Your task to perform on an android device: Set the phone to "Do not disturb". Image 0: 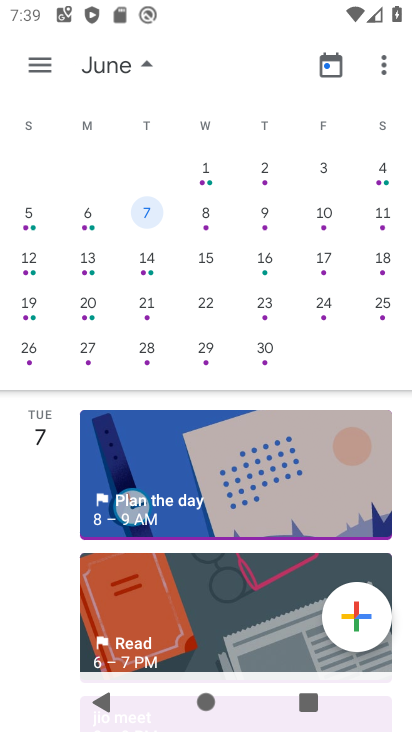
Step 0: press home button
Your task to perform on an android device: Set the phone to "Do not disturb". Image 1: 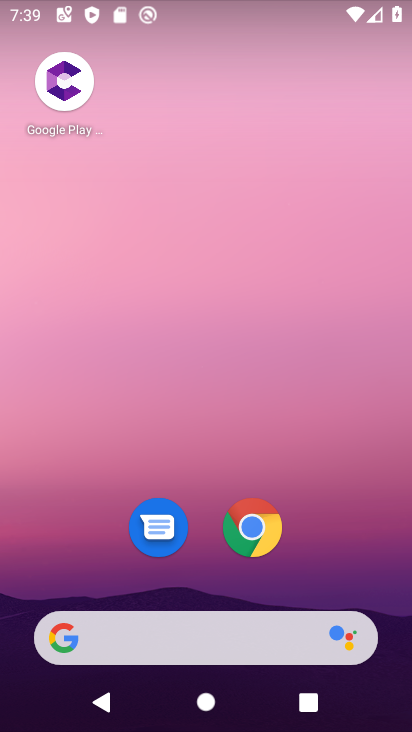
Step 1: drag from (215, 3) to (128, 461)
Your task to perform on an android device: Set the phone to "Do not disturb". Image 2: 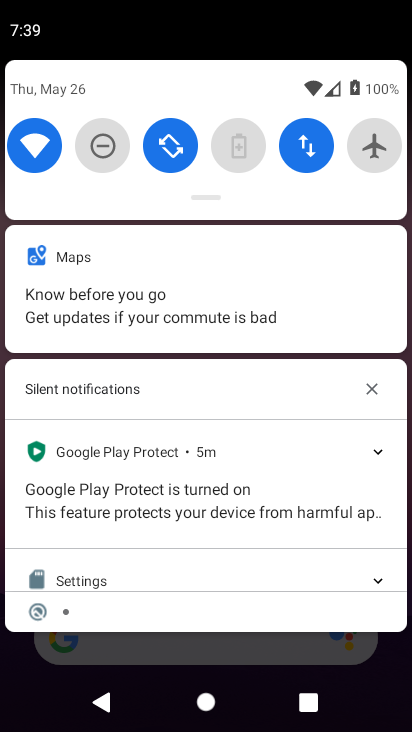
Step 2: click (94, 153)
Your task to perform on an android device: Set the phone to "Do not disturb". Image 3: 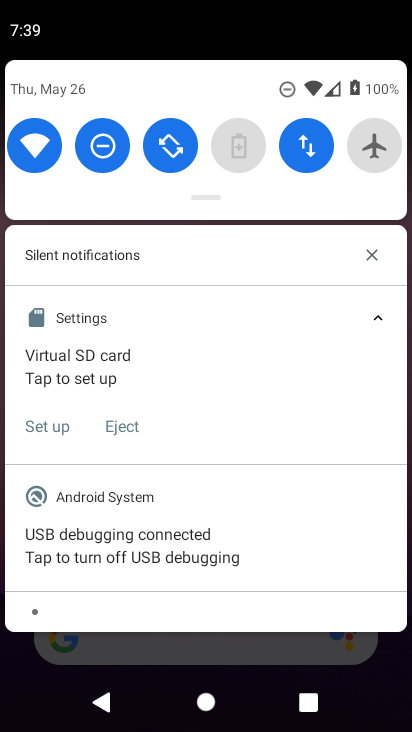
Step 3: task complete